Your task to perform on an android device: Go to privacy settings Image 0: 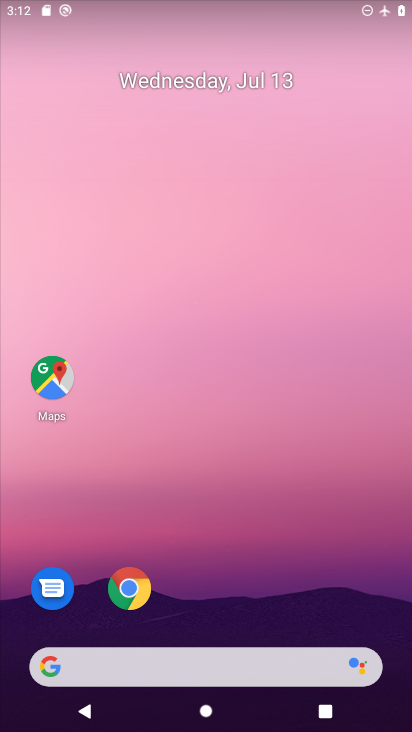
Step 0: press home button
Your task to perform on an android device: Go to privacy settings Image 1: 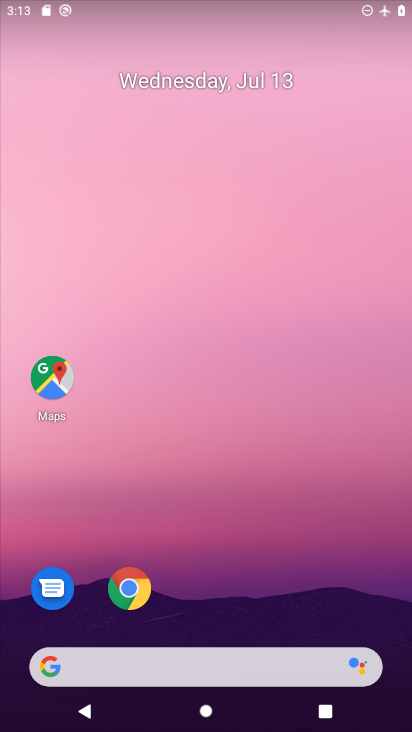
Step 1: drag from (230, 632) to (158, 70)
Your task to perform on an android device: Go to privacy settings Image 2: 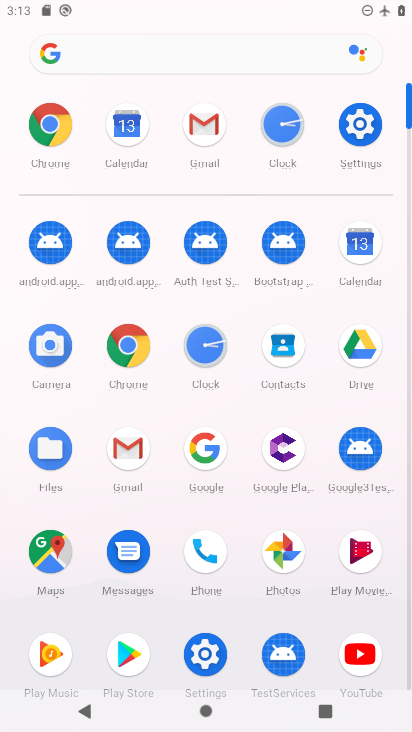
Step 2: click (358, 129)
Your task to perform on an android device: Go to privacy settings Image 3: 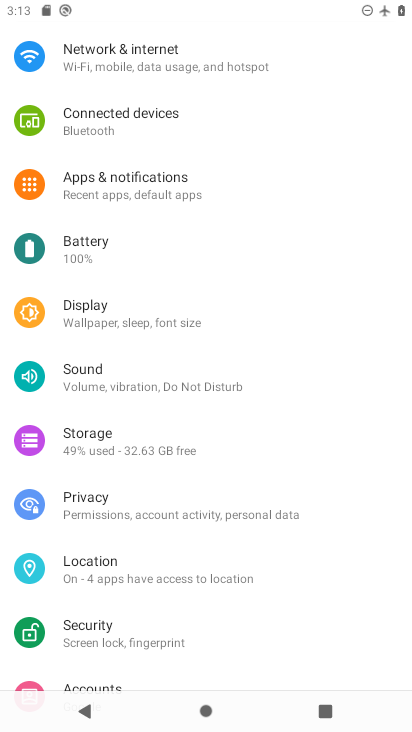
Step 3: click (96, 500)
Your task to perform on an android device: Go to privacy settings Image 4: 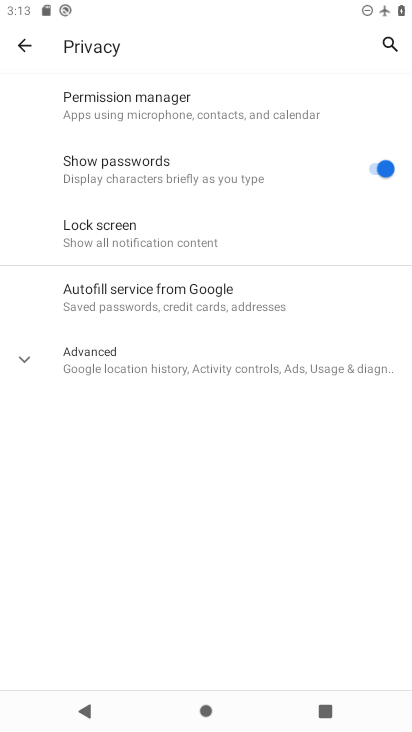
Step 4: click (178, 357)
Your task to perform on an android device: Go to privacy settings Image 5: 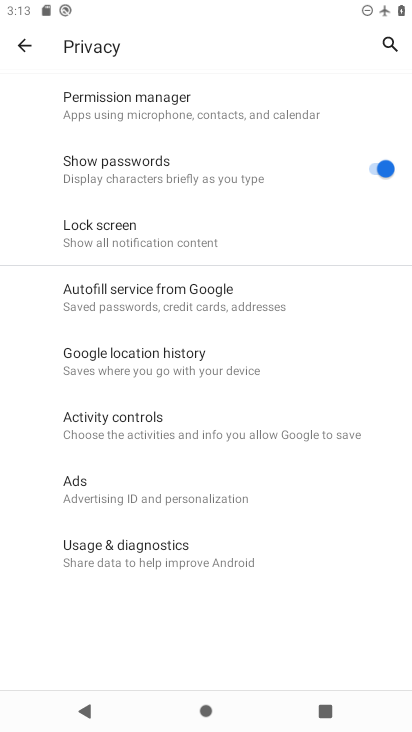
Step 5: task complete